Your task to perform on an android device: Search for pizza restaurants on Maps Image 0: 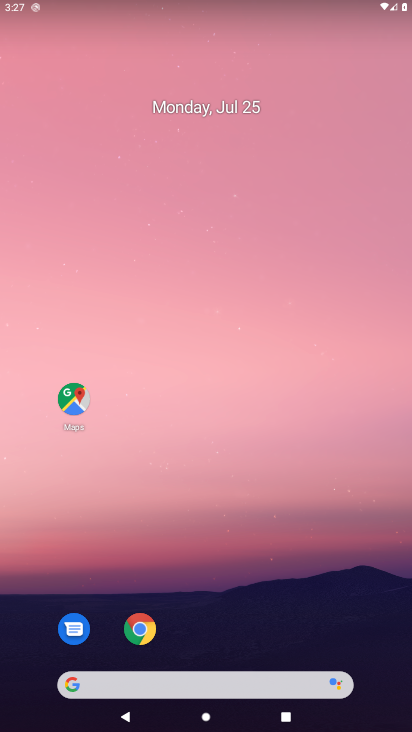
Step 0: click (73, 401)
Your task to perform on an android device: Search for pizza restaurants on Maps Image 1: 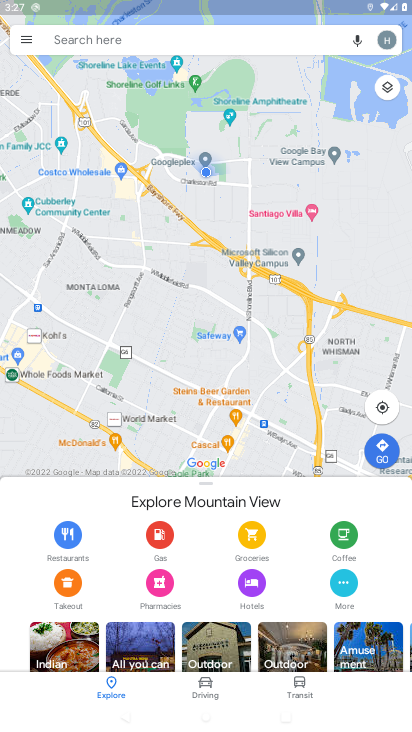
Step 1: click (67, 35)
Your task to perform on an android device: Search for pizza restaurants on Maps Image 2: 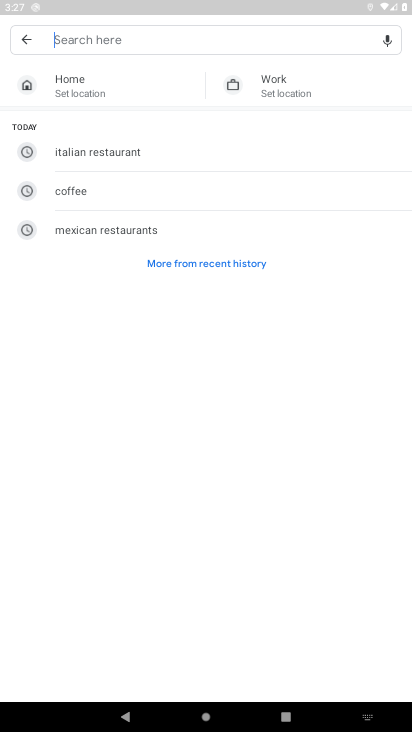
Step 2: type " pizza restaurants"
Your task to perform on an android device: Search for pizza restaurants on Maps Image 3: 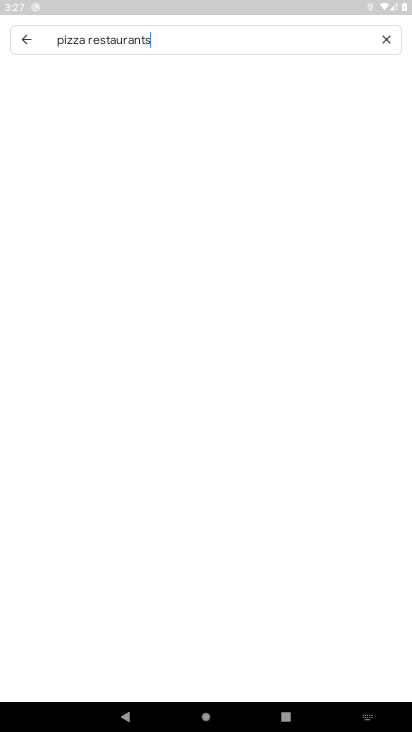
Step 3: type ""
Your task to perform on an android device: Search for pizza restaurants on Maps Image 4: 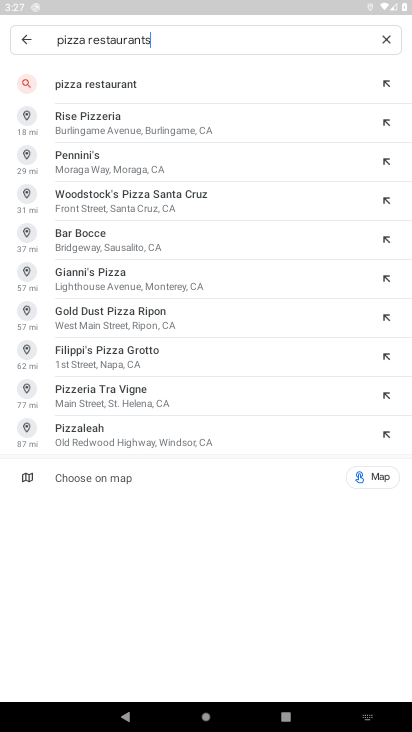
Step 4: task complete